Your task to perform on an android device: toggle notifications settings in the gmail app Image 0: 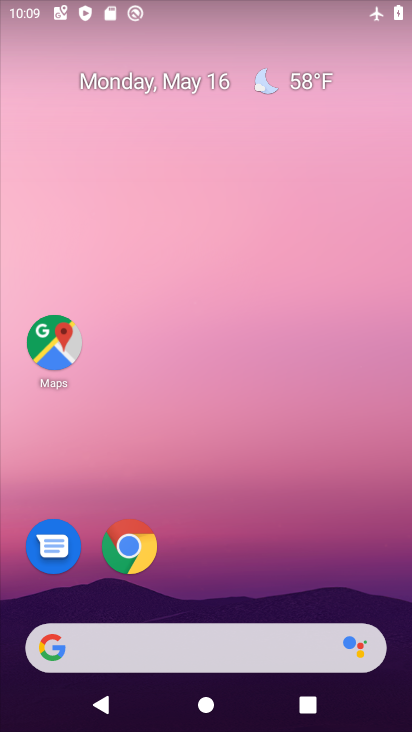
Step 0: drag from (289, 521) to (273, 162)
Your task to perform on an android device: toggle notifications settings in the gmail app Image 1: 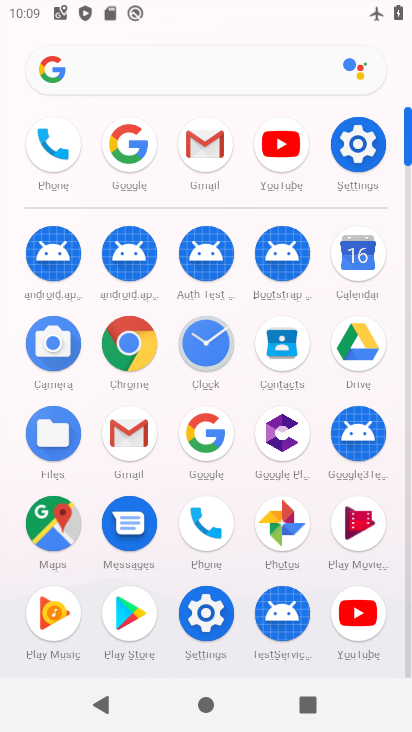
Step 1: click (204, 148)
Your task to perform on an android device: toggle notifications settings in the gmail app Image 2: 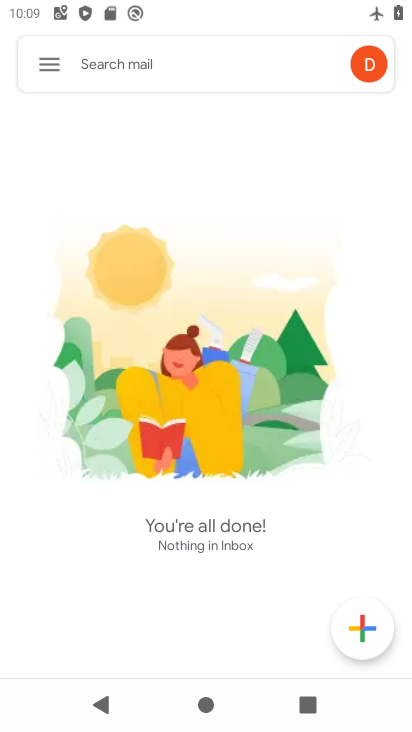
Step 2: click (48, 61)
Your task to perform on an android device: toggle notifications settings in the gmail app Image 3: 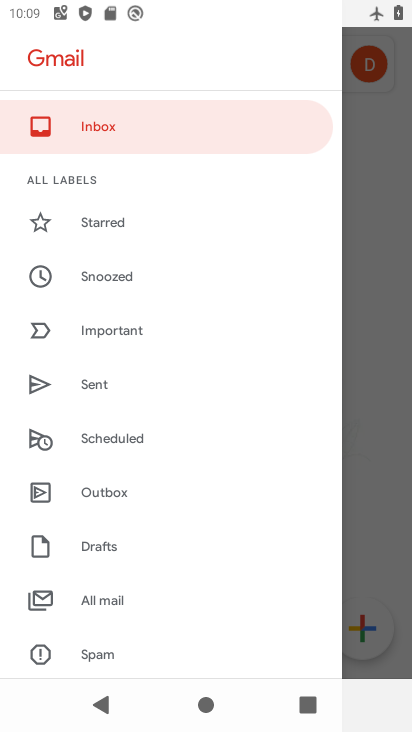
Step 3: drag from (100, 548) to (76, 428)
Your task to perform on an android device: toggle notifications settings in the gmail app Image 4: 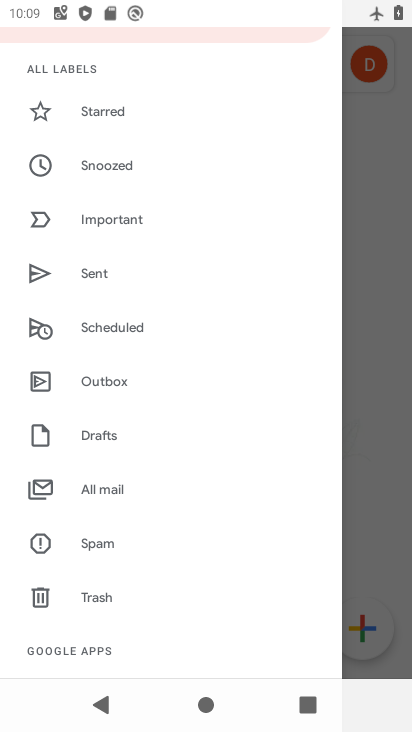
Step 4: drag from (91, 565) to (94, 436)
Your task to perform on an android device: toggle notifications settings in the gmail app Image 5: 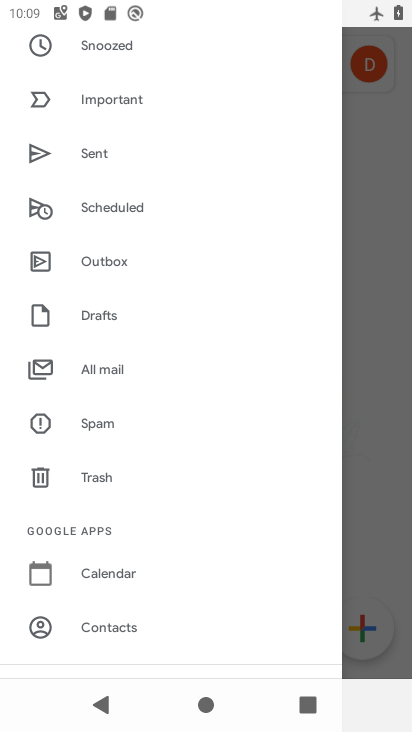
Step 5: drag from (95, 591) to (104, 403)
Your task to perform on an android device: toggle notifications settings in the gmail app Image 6: 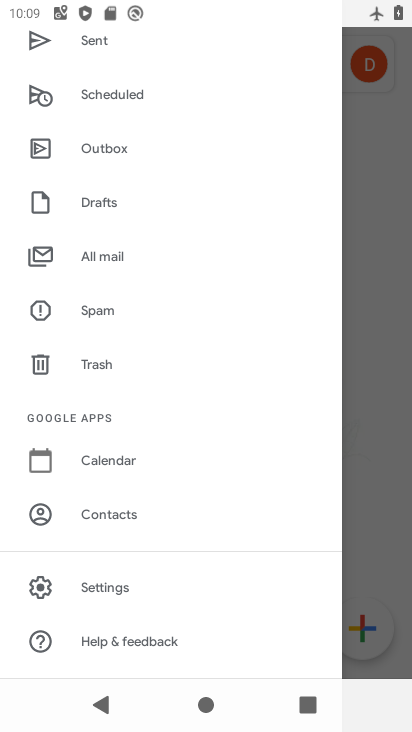
Step 6: click (111, 591)
Your task to perform on an android device: toggle notifications settings in the gmail app Image 7: 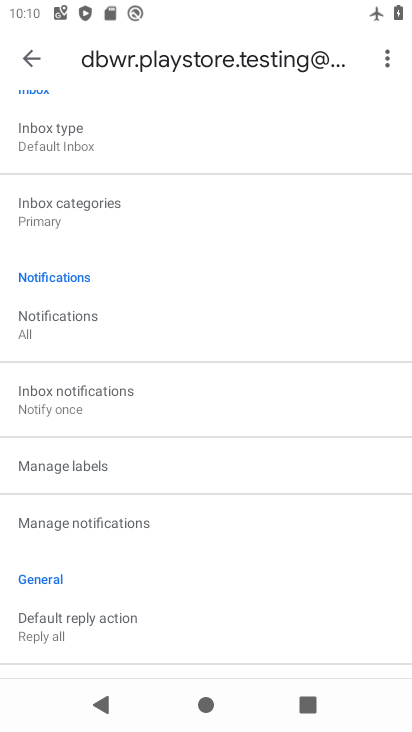
Step 7: click (76, 522)
Your task to perform on an android device: toggle notifications settings in the gmail app Image 8: 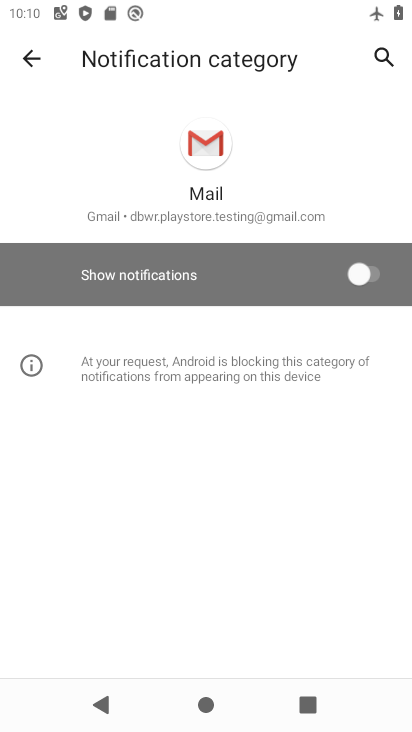
Step 8: click (355, 283)
Your task to perform on an android device: toggle notifications settings in the gmail app Image 9: 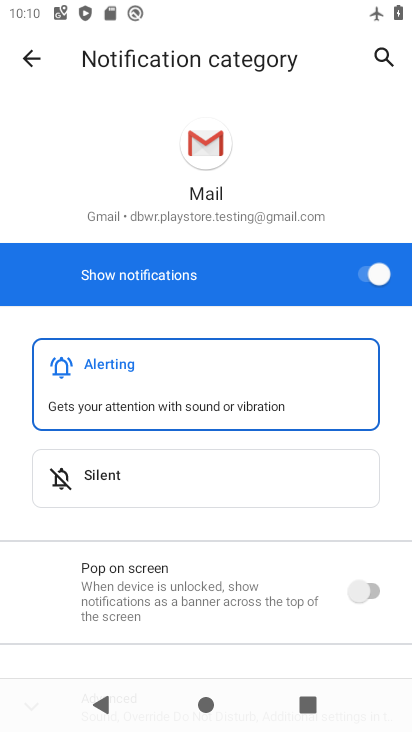
Step 9: task complete